Your task to perform on an android device: find snoozed emails in the gmail app Image 0: 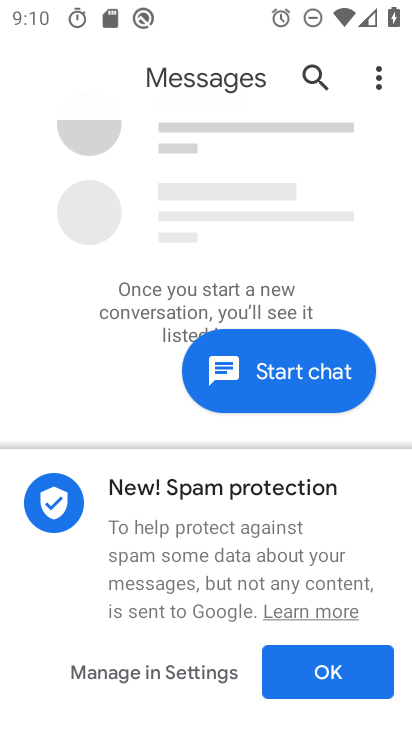
Step 0: press home button
Your task to perform on an android device: find snoozed emails in the gmail app Image 1: 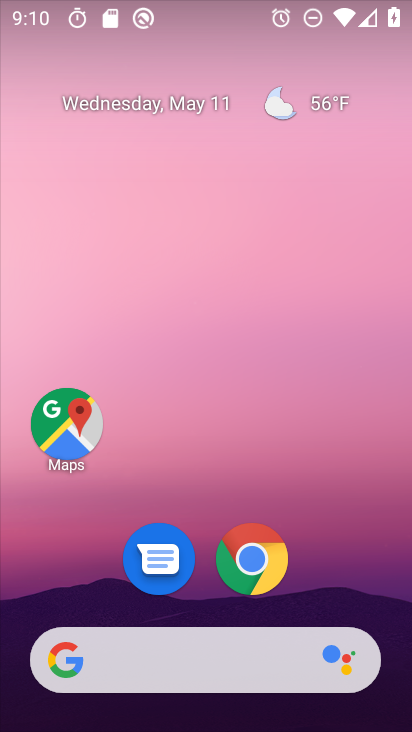
Step 1: drag from (320, 587) to (284, 184)
Your task to perform on an android device: find snoozed emails in the gmail app Image 2: 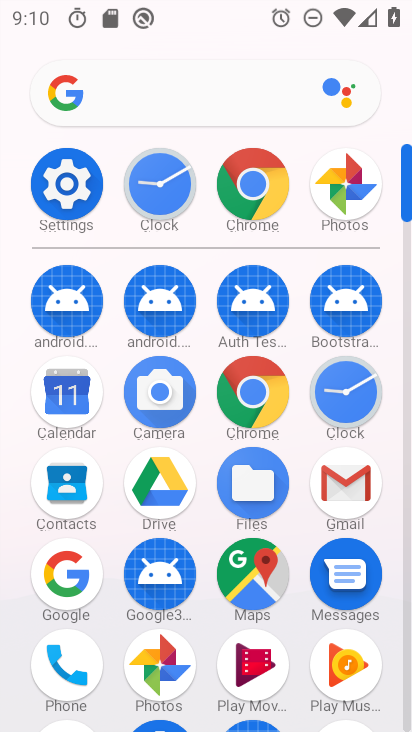
Step 2: click (352, 493)
Your task to perform on an android device: find snoozed emails in the gmail app Image 3: 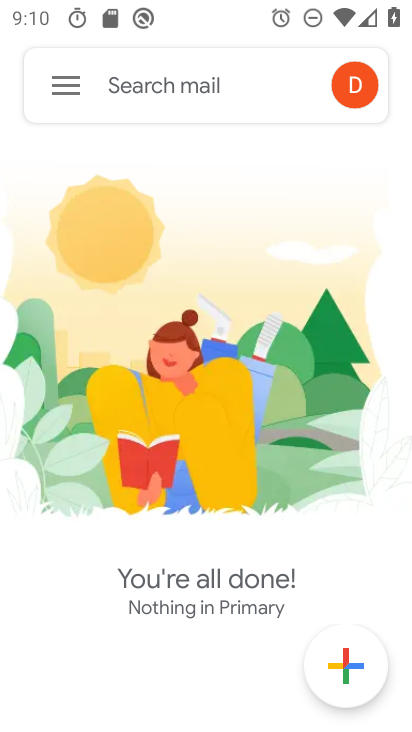
Step 3: click (67, 76)
Your task to perform on an android device: find snoozed emails in the gmail app Image 4: 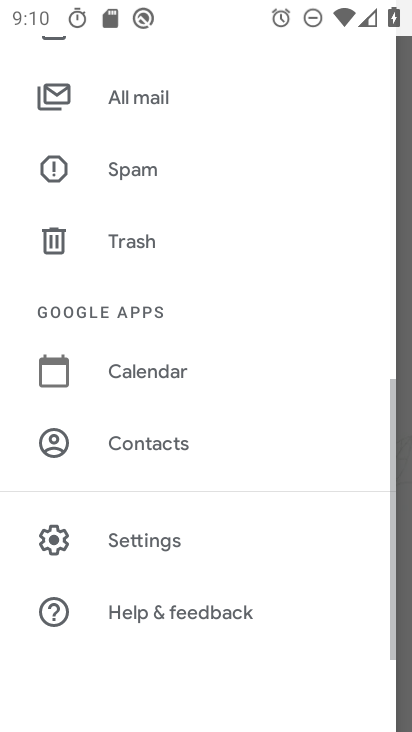
Step 4: drag from (230, 167) to (187, 530)
Your task to perform on an android device: find snoozed emails in the gmail app Image 5: 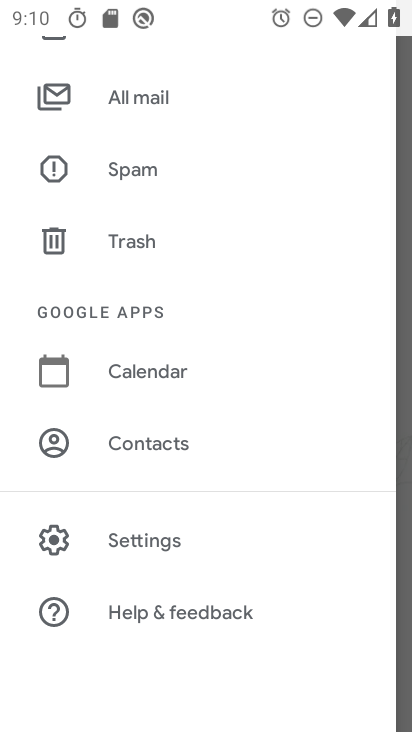
Step 5: drag from (146, 192) to (182, 622)
Your task to perform on an android device: find snoozed emails in the gmail app Image 6: 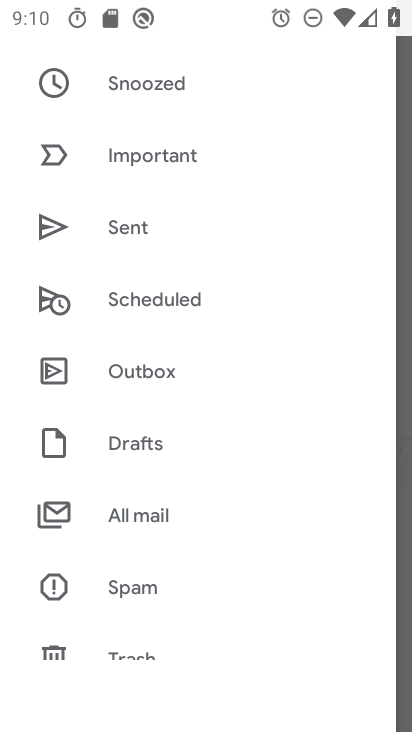
Step 6: click (135, 89)
Your task to perform on an android device: find snoozed emails in the gmail app Image 7: 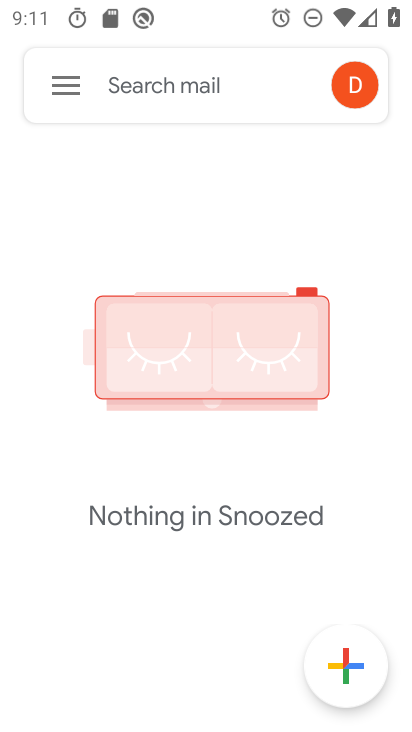
Step 7: task complete